Your task to perform on an android device: stop showing notifications on the lock screen Image 0: 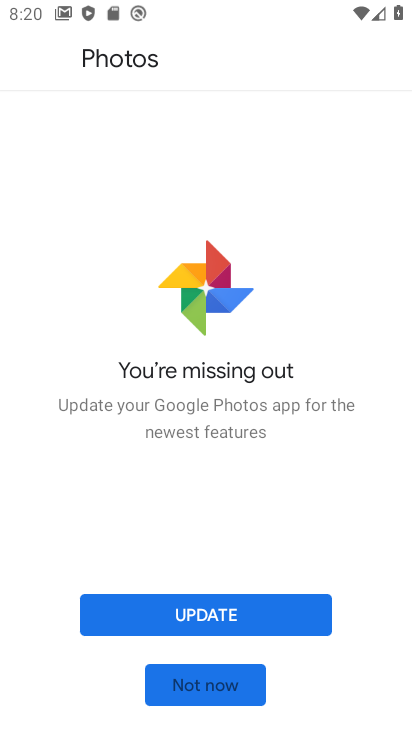
Step 0: press home button
Your task to perform on an android device: stop showing notifications on the lock screen Image 1: 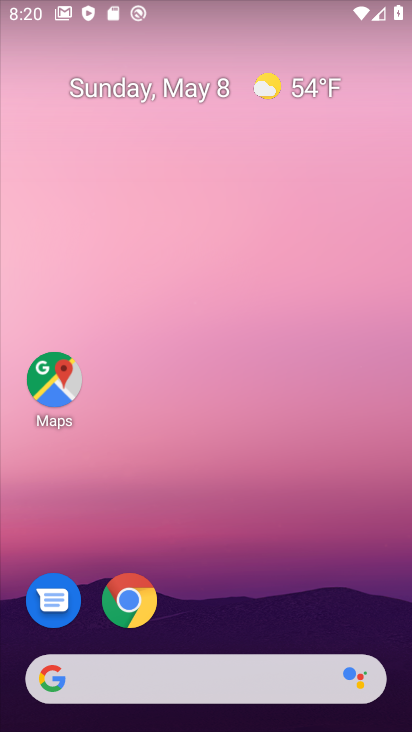
Step 1: drag from (255, 617) to (286, 212)
Your task to perform on an android device: stop showing notifications on the lock screen Image 2: 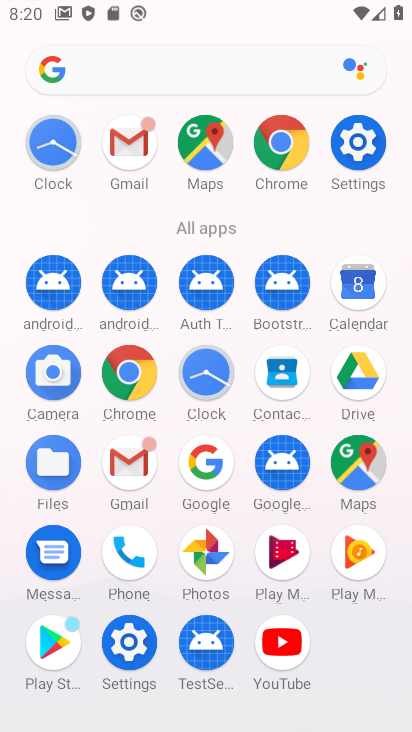
Step 2: click (351, 131)
Your task to perform on an android device: stop showing notifications on the lock screen Image 3: 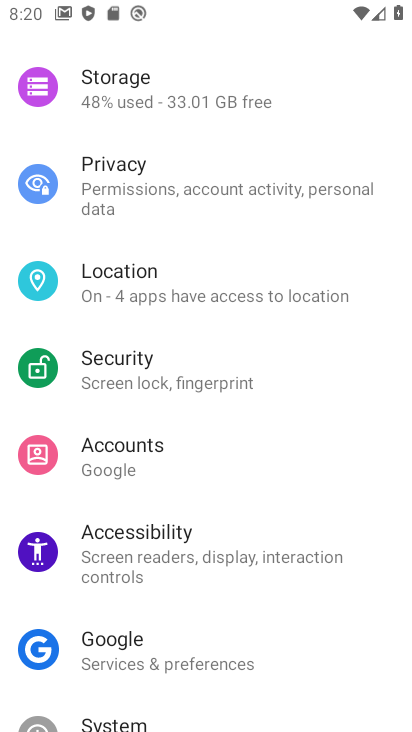
Step 3: drag from (150, 672) to (241, 303)
Your task to perform on an android device: stop showing notifications on the lock screen Image 4: 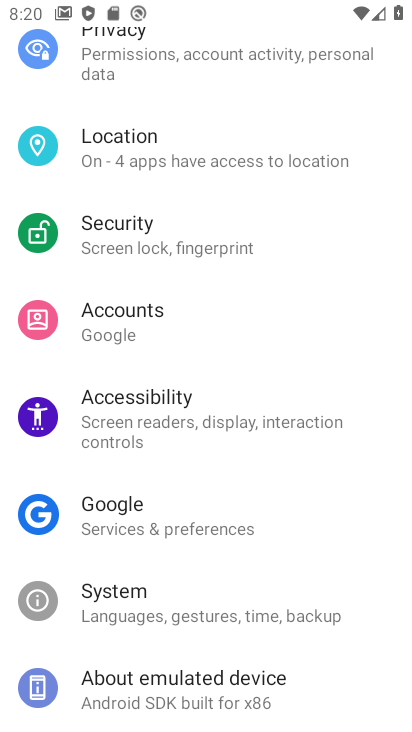
Step 4: drag from (226, 57) to (233, 638)
Your task to perform on an android device: stop showing notifications on the lock screen Image 5: 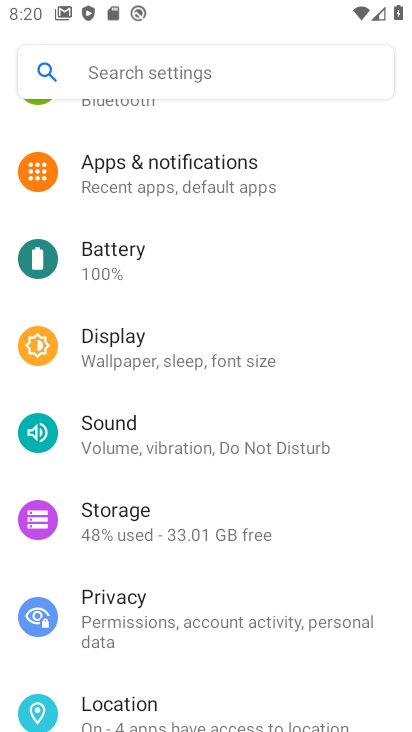
Step 5: click (197, 183)
Your task to perform on an android device: stop showing notifications on the lock screen Image 6: 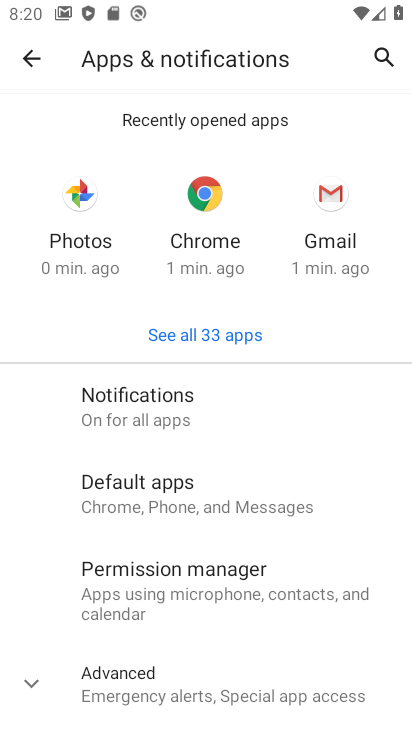
Step 6: click (190, 432)
Your task to perform on an android device: stop showing notifications on the lock screen Image 7: 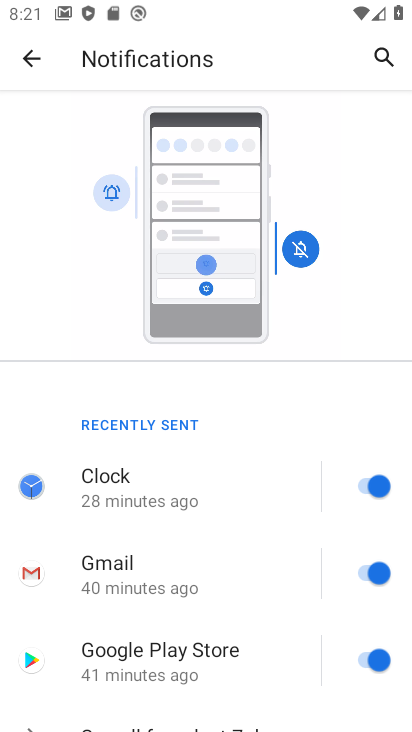
Step 7: drag from (162, 610) to (221, 258)
Your task to perform on an android device: stop showing notifications on the lock screen Image 8: 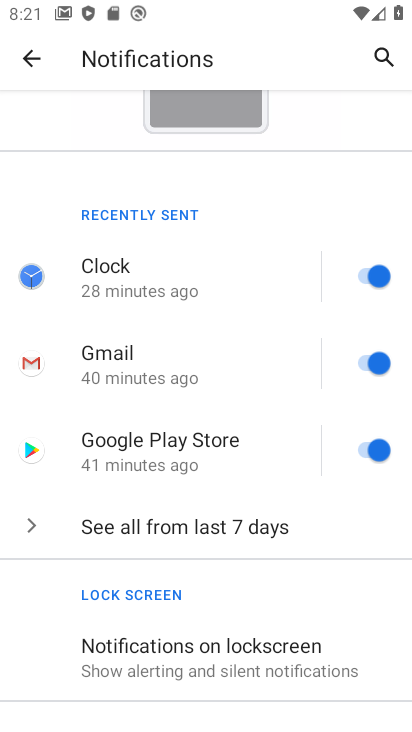
Step 8: click (152, 639)
Your task to perform on an android device: stop showing notifications on the lock screen Image 9: 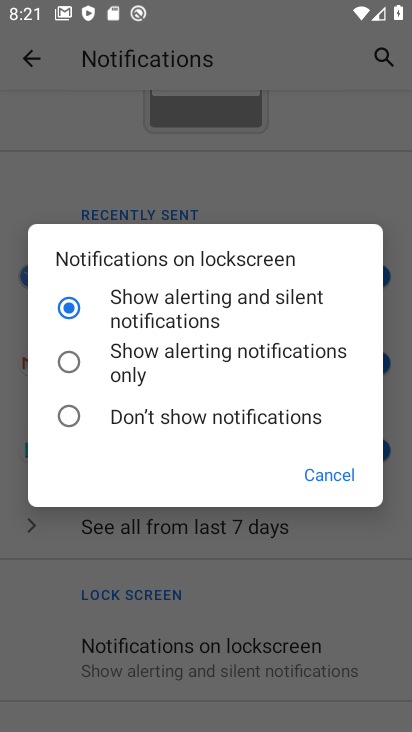
Step 9: click (122, 413)
Your task to perform on an android device: stop showing notifications on the lock screen Image 10: 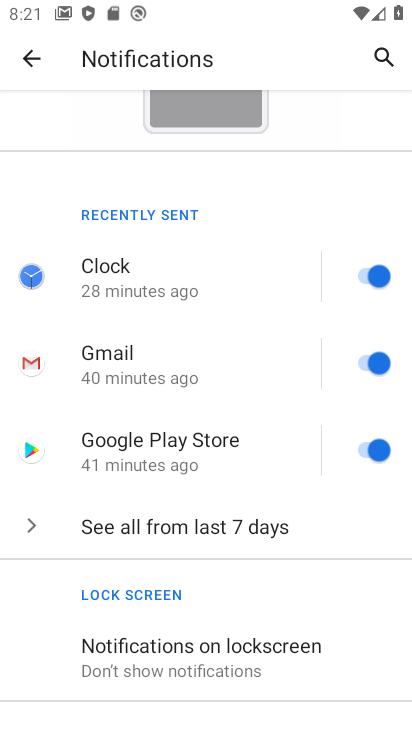
Step 10: task complete